Your task to perform on an android device: check out phone information Image 0: 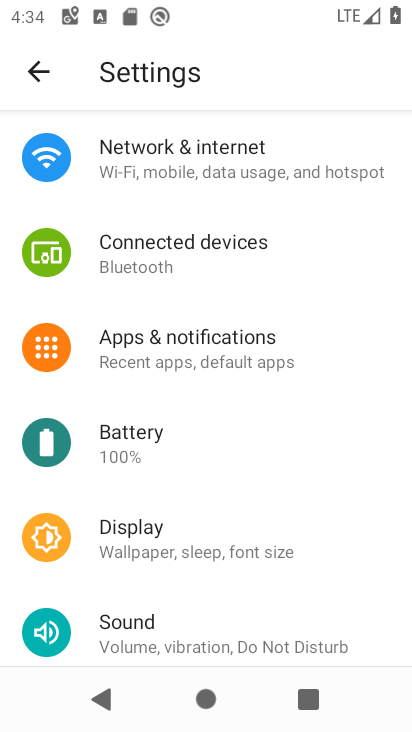
Step 0: drag from (282, 572) to (302, 245)
Your task to perform on an android device: check out phone information Image 1: 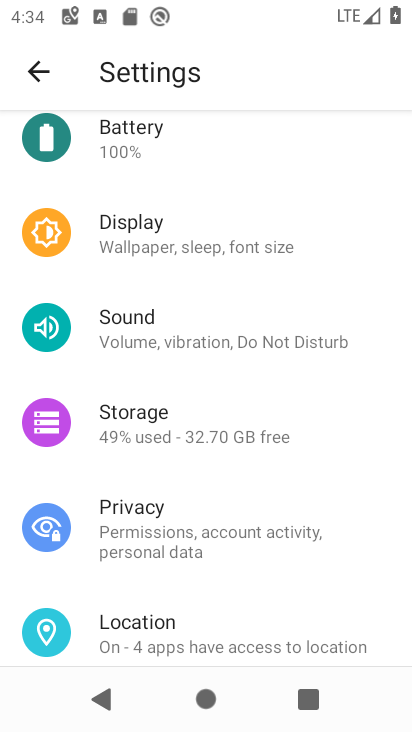
Step 1: drag from (319, 598) to (334, 291)
Your task to perform on an android device: check out phone information Image 2: 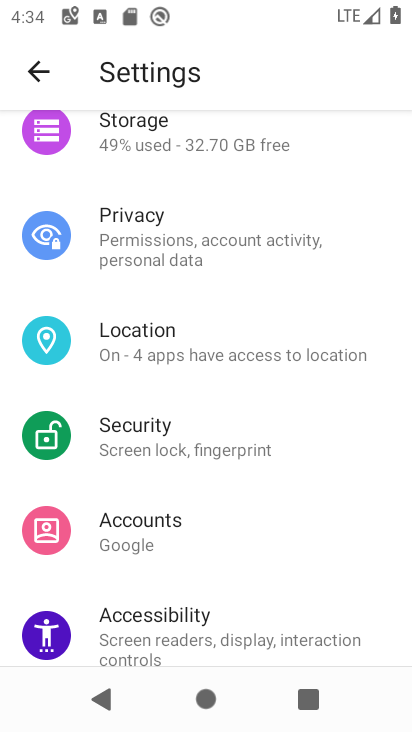
Step 2: drag from (329, 591) to (361, 262)
Your task to perform on an android device: check out phone information Image 3: 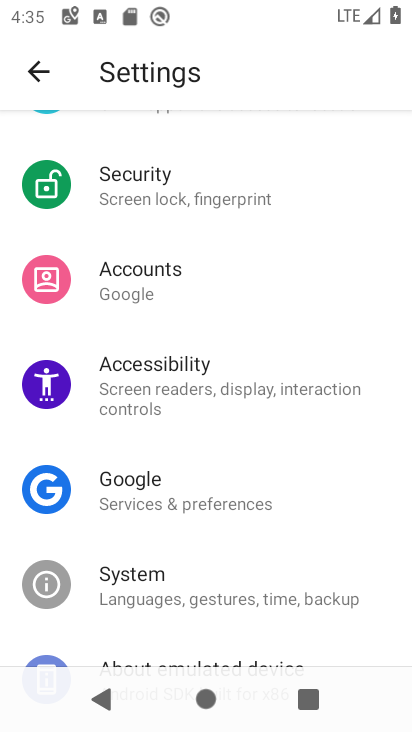
Step 3: drag from (353, 523) to (366, 204)
Your task to perform on an android device: check out phone information Image 4: 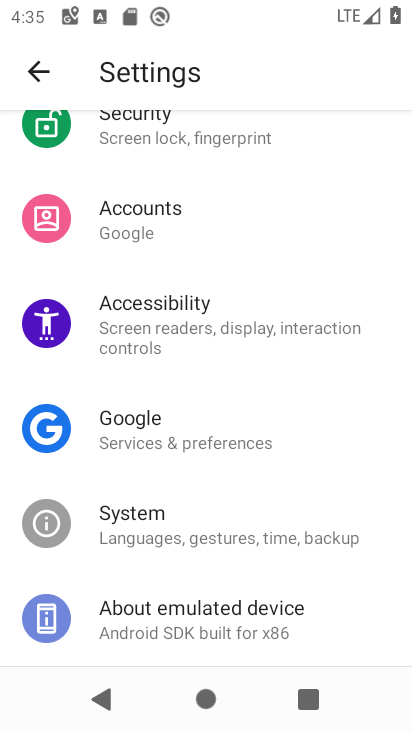
Step 4: click (172, 619)
Your task to perform on an android device: check out phone information Image 5: 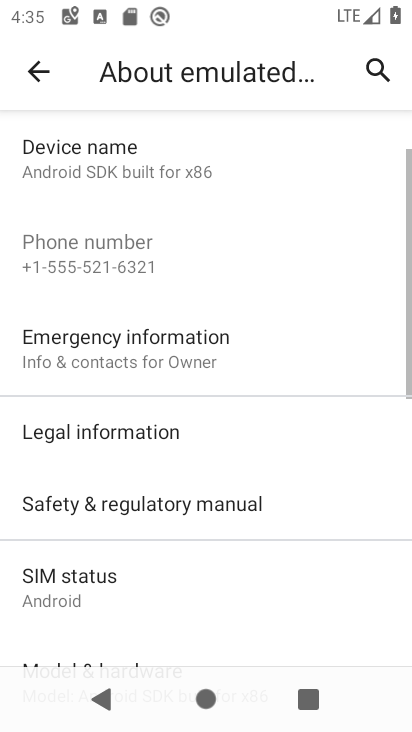
Step 5: task complete